Your task to perform on an android device: all mails in gmail Image 0: 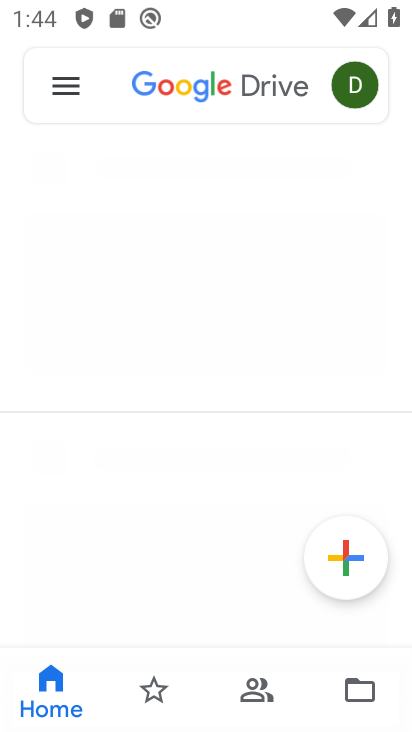
Step 0: drag from (359, 569) to (411, 404)
Your task to perform on an android device: all mails in gmail Image 1: 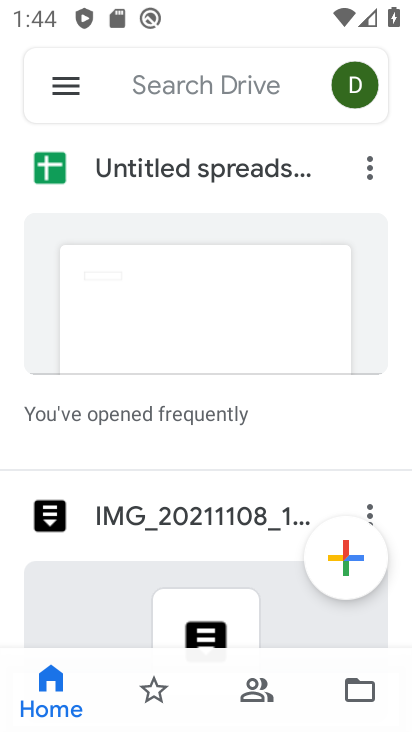
Step 1: press home button
Your task to perform on an android device: all mails in gmail Image 2: 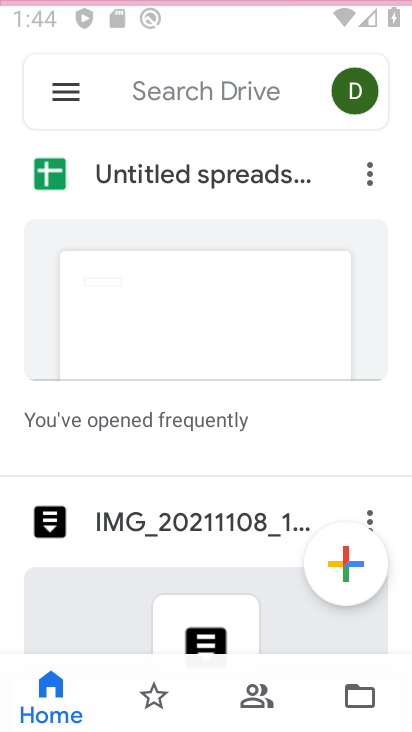
Step 2: drag from (411, 404) to (411, 507)
Your task to perform on an android device: all mails in gmail Image 3: 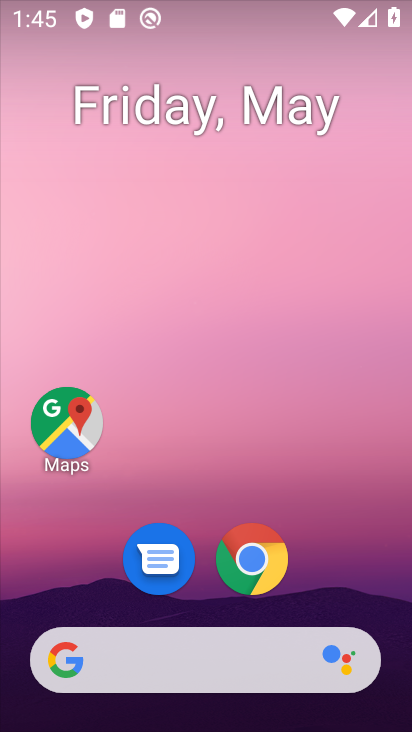
Step 3: drag from (336, 557) to (336, 125)
Your task to perform on an android device: all mails in gmail Image 4: 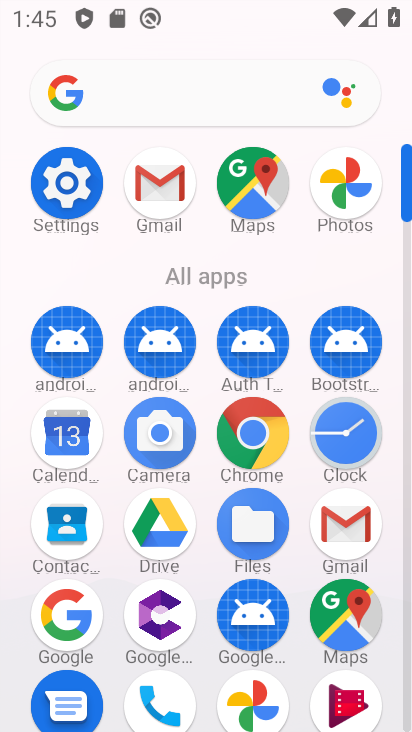
Step 4: click (336, 536)
Your task to perform on an android device: all mails in gmail Image 5: 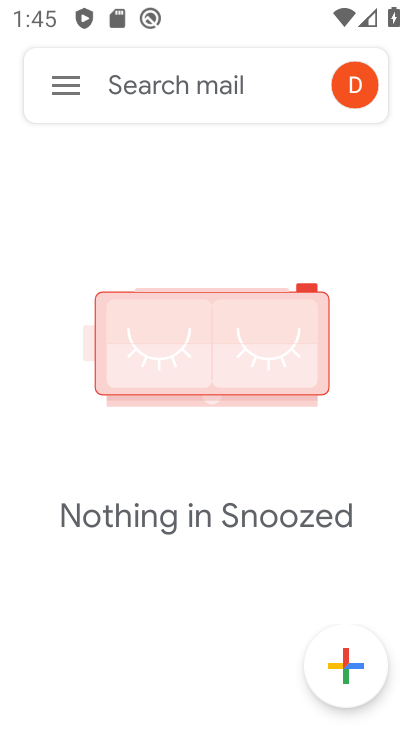
Step 5: click (61, 91)
Your task to perform on an android device: all mails in gmail Image 6: 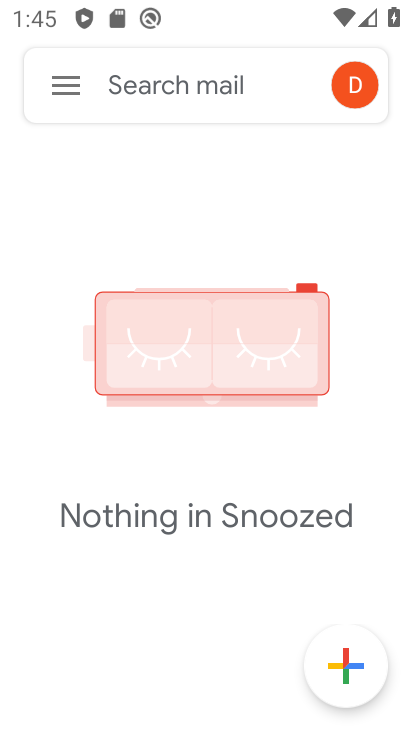
Step 6: click (66, 97)
Your task to perform on an android device: all mails in gmail Image 7: 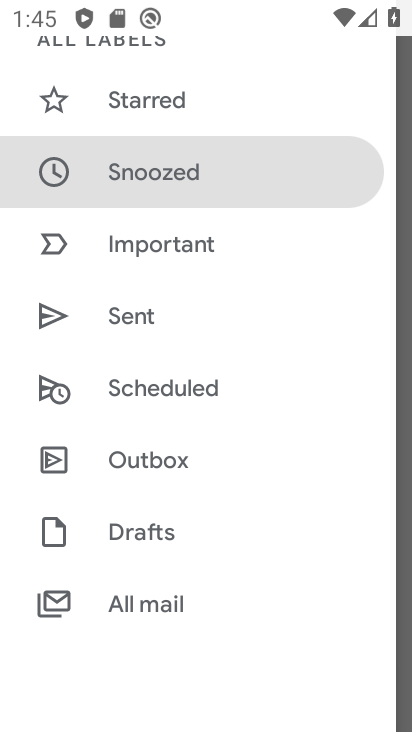
Step 7: click (189, 608)
Your task to perform on an android device: all mails in gmail Image 8: 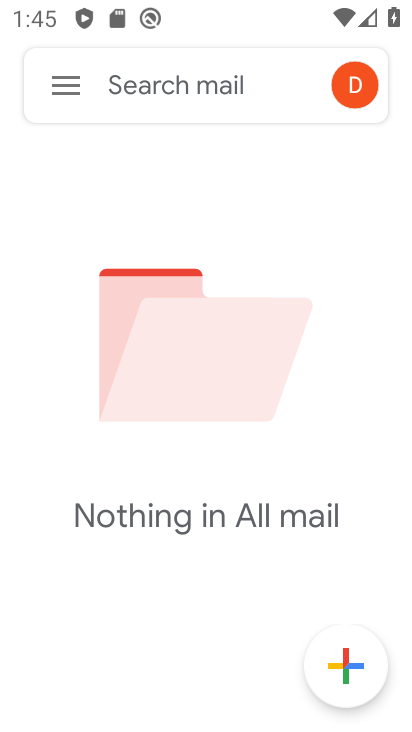
Step 8: task complete